Your task to perform on an android device: See recent photos Image 0: 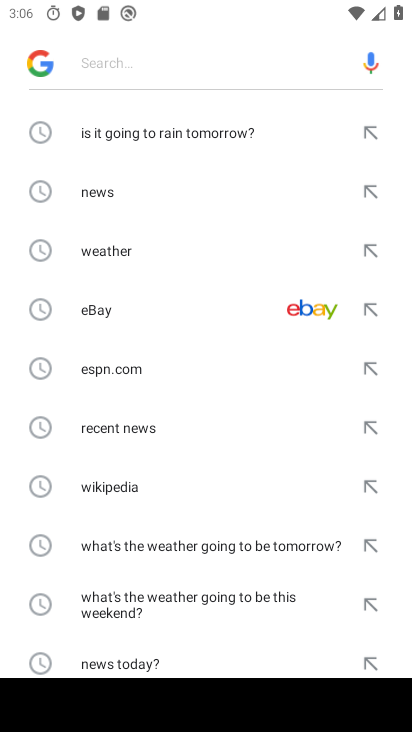
Step 0: press back button
Your task to perform on an android device: See recent photos Image 1: 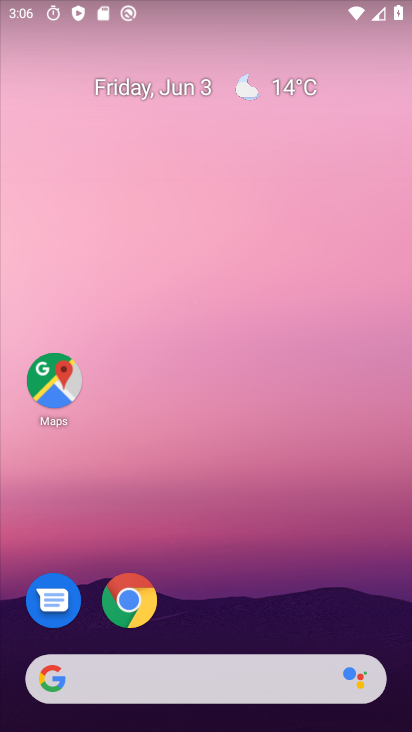
Step 1: drag from (253, 567) to (233, 23)
Your task to perform on an android device: See recent photos Image 2: 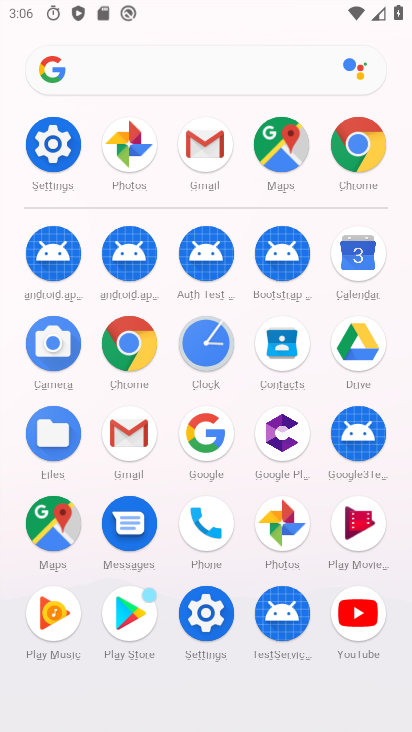
Step 2: click (127, 141)
Your task to perform on an android device: See recent photos Image 3: 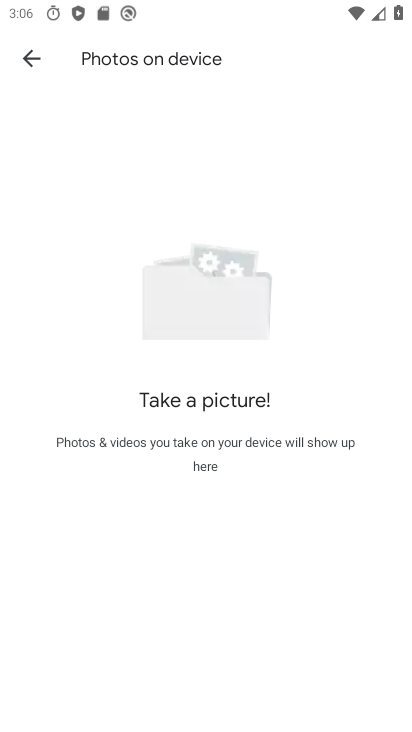
Step 3: click (26, 57)
Your task to perform on an android device: See recent photos Image 4: 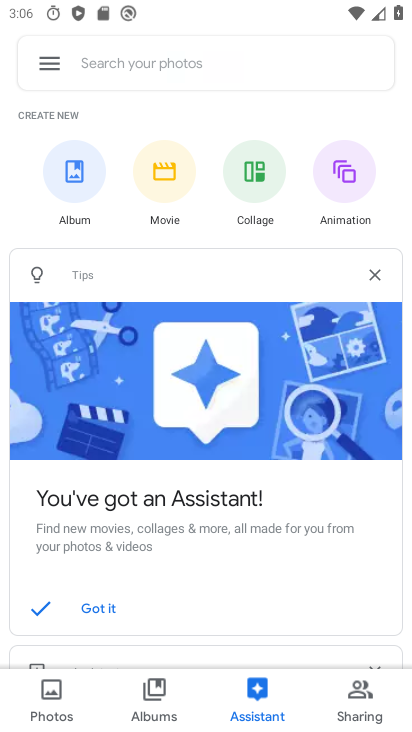
Step 4: click (43, 700)
Your task to perform on an android device: See recent photos Image 5: 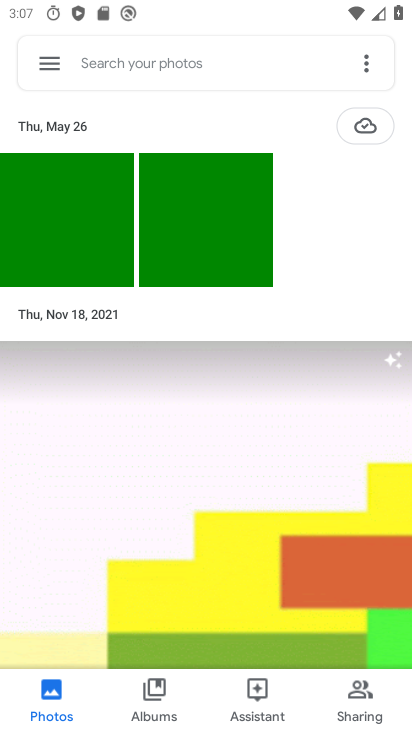
Step 5: task complete